Your task to perform on an android device: Open wifi settings Image 0: 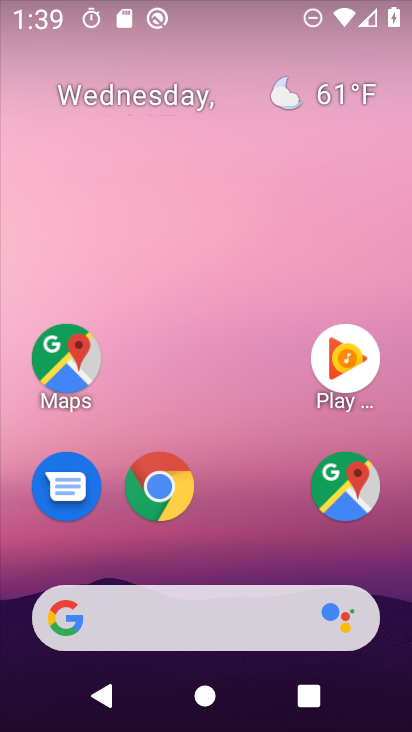
Step 0: drag from (248, 544) to (248, 120)
Your task to perform on an android device: Open wifi settings Image 1: 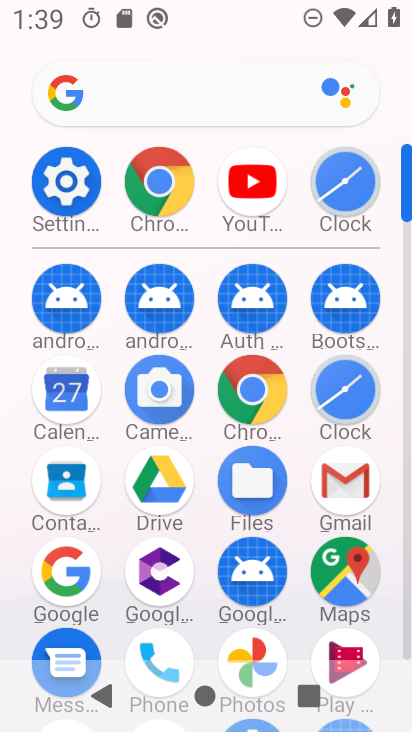
Step 1: click (54, 182)
Your task to perform on an android device: Open wifi settings Image 2: 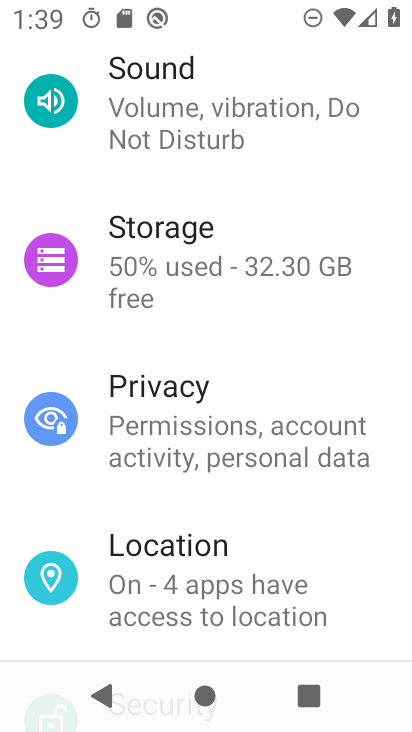
Step 2: drag from (355, 513) to (354, 453)
Your task to perform on an android device: Open wifi settings Image 3: 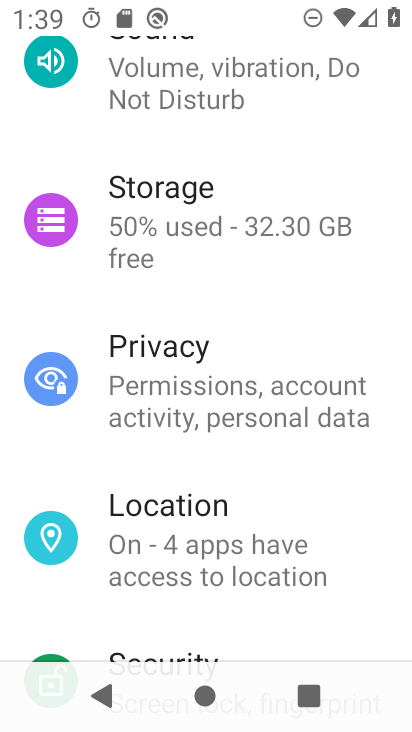
Step 3: drag from (374, 546) to (373, 484)
Your task to perform on an android device: Open wifi settings Image 4: 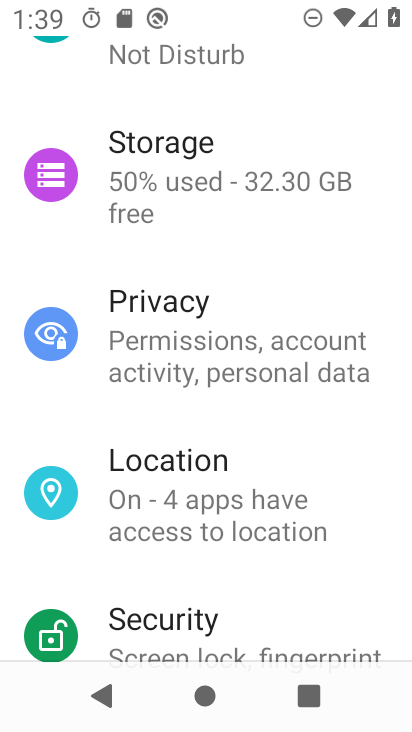
Step 4: drag from (362, 565) to (364, 505)
Your task to perform on an android device: Open wifi settings Image 5: 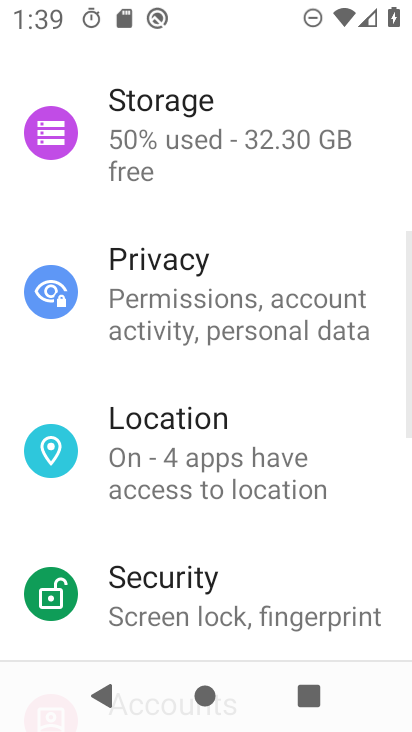
Step 5: drag from (354, 568) to (354, 508)
Your task to perform on an android device: Open wifi settings Image 6: 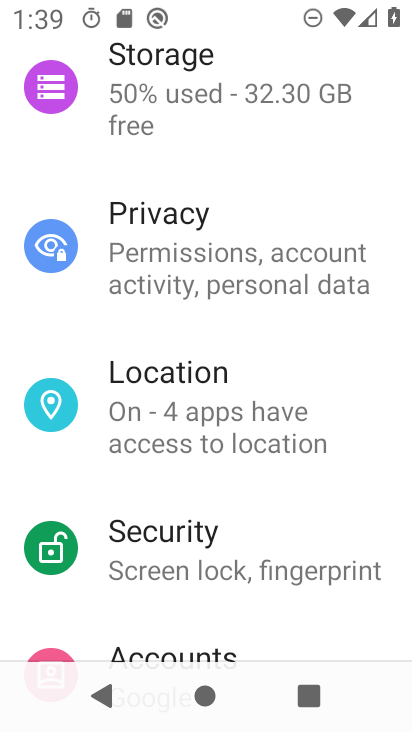
Step 6: drag from (357, 593) to (357, 529)
Your task to perform on an android device: Open wifi settings Image 7: 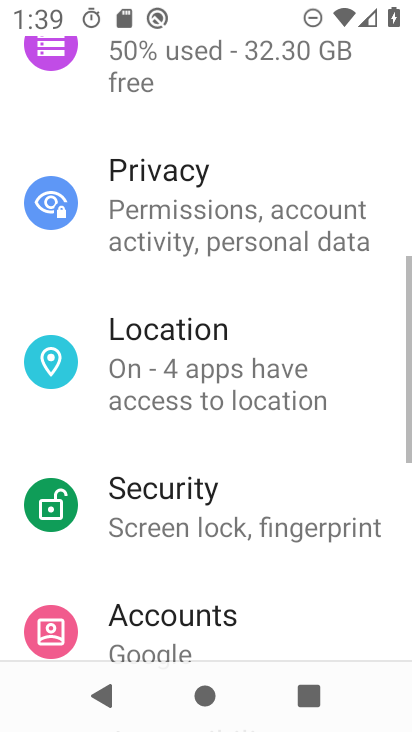
Step 7: drag from (356, 588) to (356, 519)
Your task to perform on an android device: Open wifi settings Image 8: 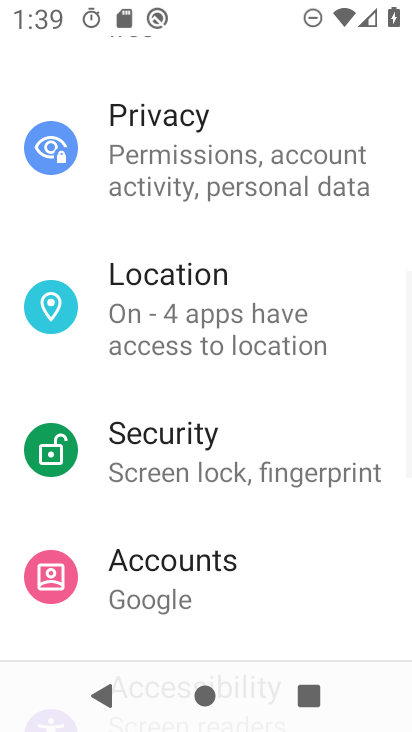
Step 8: drag from (346, 597) to (355, 524)
Your task to perform on an android device: Open wifi settings Image 9: 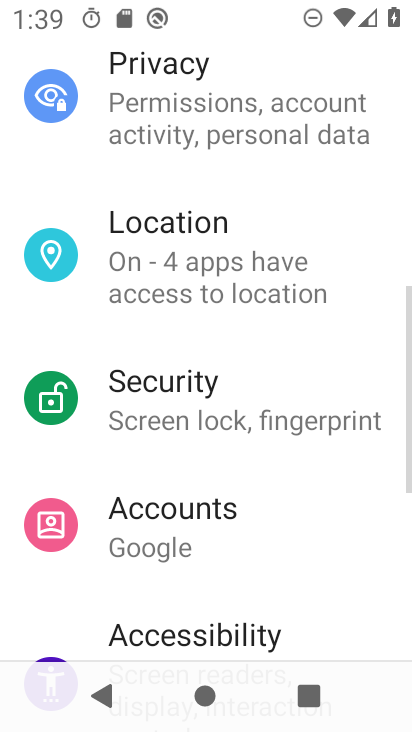
Step 9: drag from (349, 592) to (349, 492)
Your task to perform on an android device: Open wifi settings Image 10: 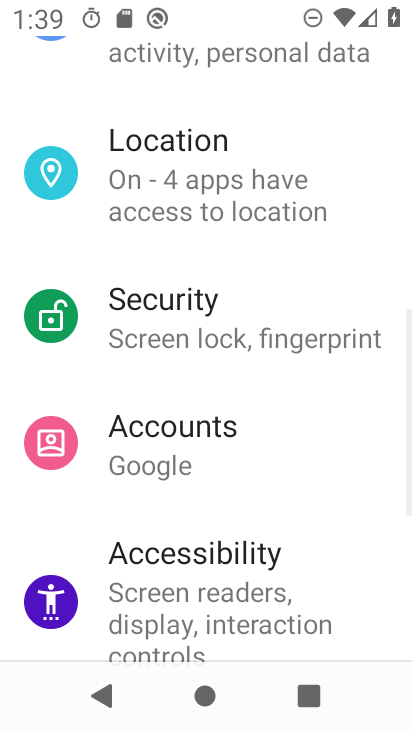
Step 10: drag from (340, 579) to (341, 493)
Your task to perform on an android device: Open wifi settings Image 11: 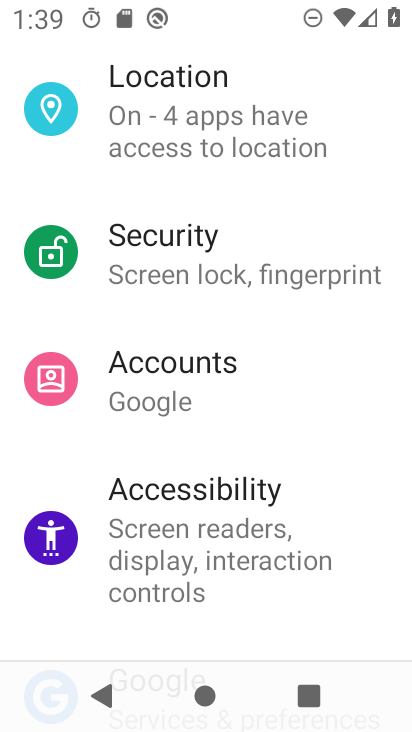
Step 11: drag from (352, 563) to (351, 466)
Your task to perform on an android device: Open wifi settings Image 12: 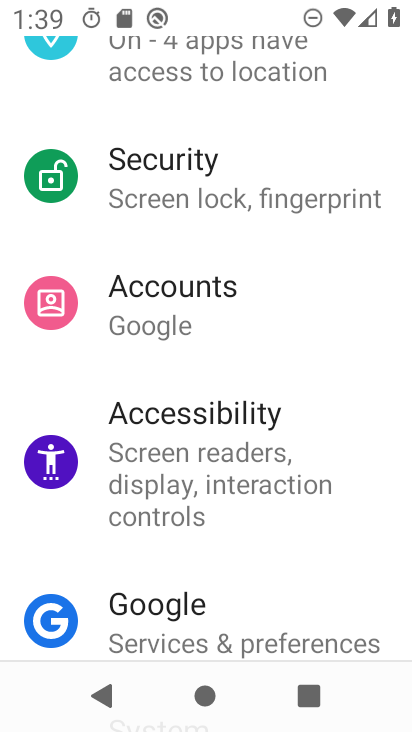
Step 12: drag from (345, 574) to (346, 474)
Your task to perform on an android device: Open wifi settings Image 13: 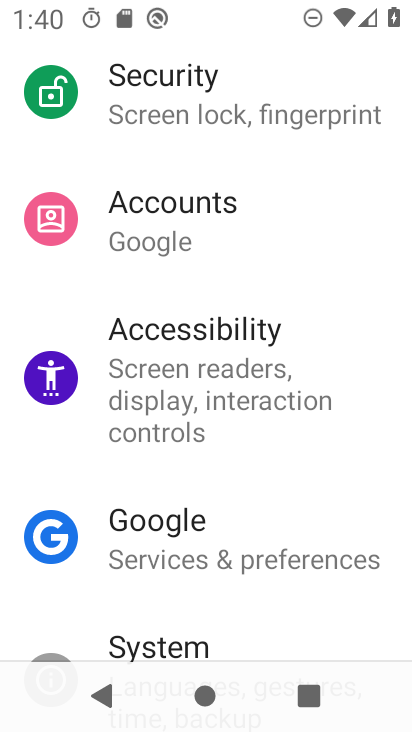
Step 13: drag from (342, 580) to (342, 477)
Your task to perform on an android device: Open wifi settings Image 14: 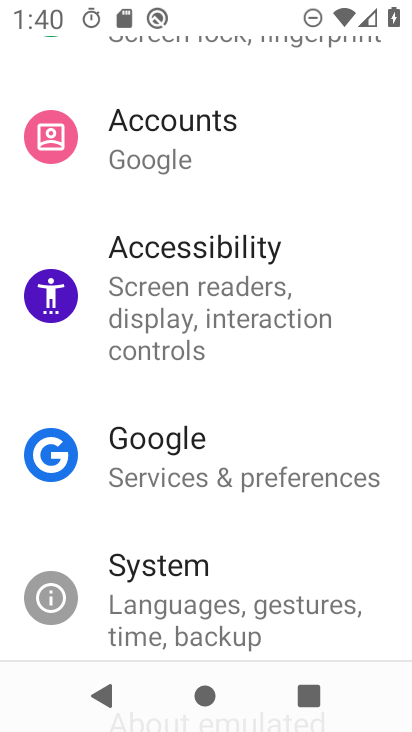
Step 14: drag from (334, 554) to (334, 427)
Your task to perform on an android device: Open wifi settings Image 15: 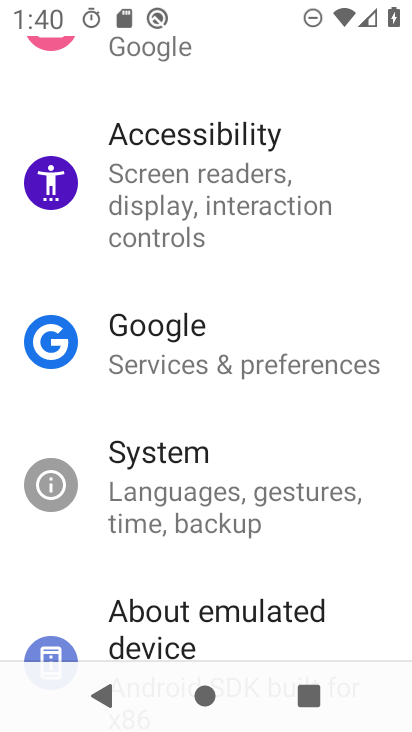
Step 15: drag from (336, 556) to (336, 460)
Your task to perform on an android device: Open wifi settings Image 16: 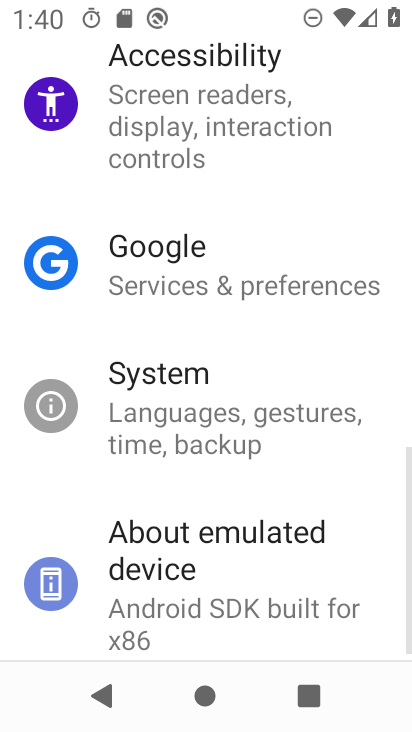
Step 16: drag from (344, 328) to (348, 443)
Your task to perform on an android device: Open wifi settings Image 17: 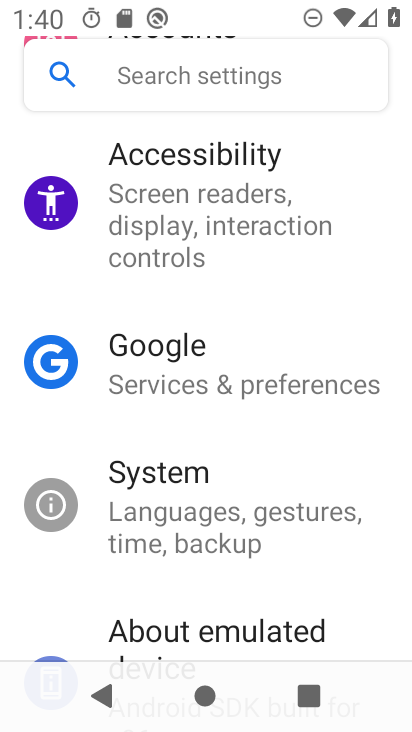
Step 17: drag from (358, 287) to (362, 356)
Your task to perform on an android device: Open wifi settings Image 18: 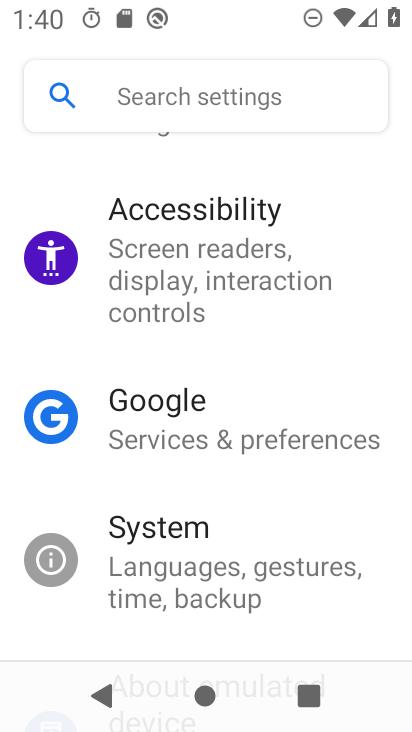
Step 18: drag from (25, 561) to (349, 505)
Your task to perform on an android device: Open wifi settings Image 19: 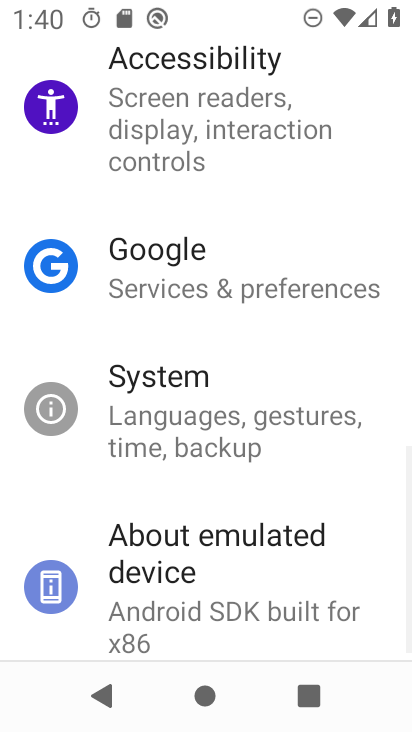
Step 19: drag from (347, 324) to (353, 428)
Your task to perform on an android device: Open wifi settings Image 20: 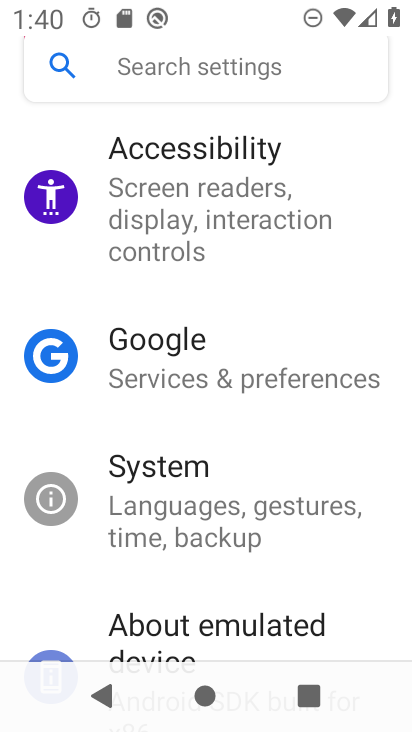
Step 20: drag from (362, 318) to (362, 393)
Your task to perform on an android device: Open wifi settings Image 21: 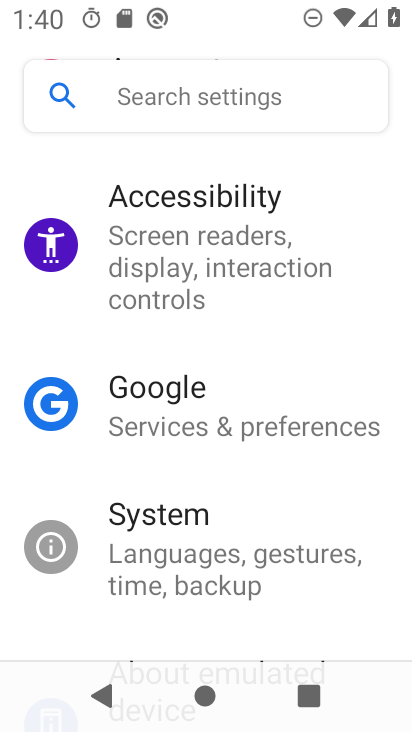
Step 21: drag from (353, 302) to (358, 359)
Your task to perform on an android device: Open wifi settings Image 22: 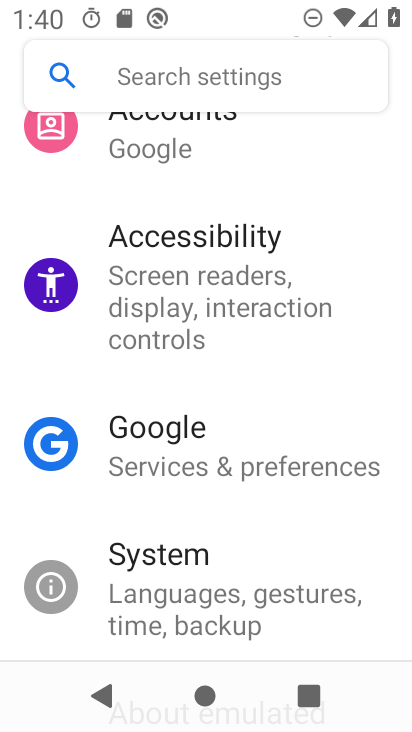
Step 22: drag from (369, 277) to (371, 378)
Your task to perform on an android device: Open wifi settings Image 23: 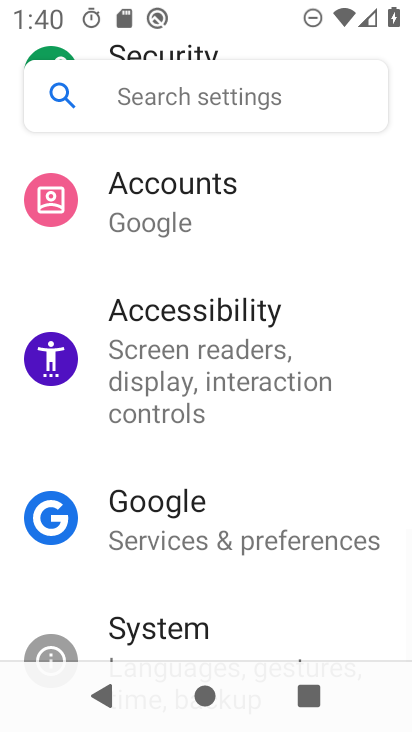
Step 23: drag from (365, 314) to (365, 391)
Your task to perform on an android device: Open wifi settings Image 24: 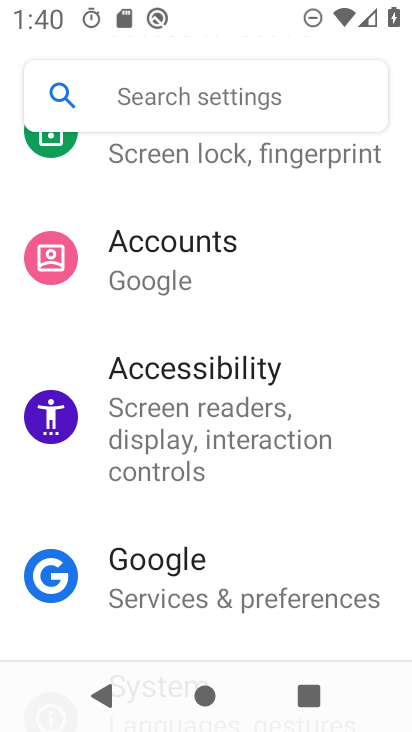
Step 24: drag from (362, 298) to (362, 437)
Your task to perform on an android device: Open wifi settings Image 25: 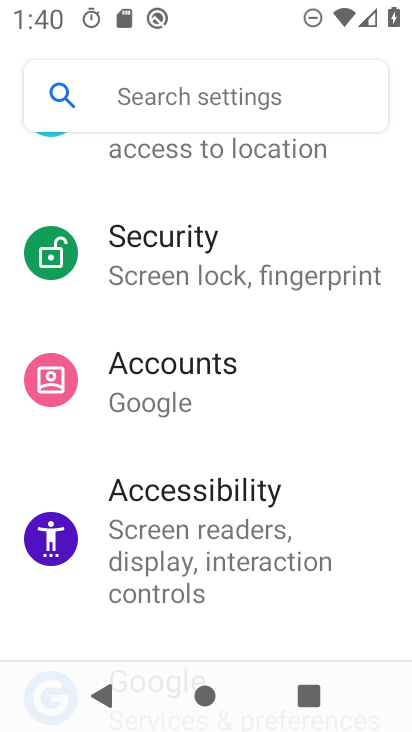
Step 25: drag from (359, 350) to (359, 448)
Your task to perform on an android device: Open wifi settings Image 26: 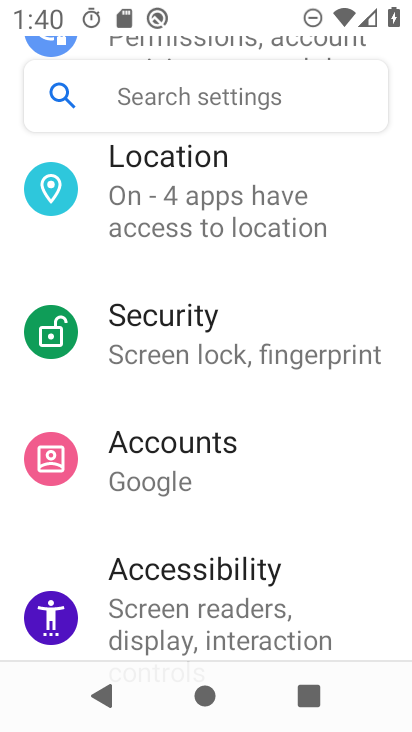
Step 26: drag from (348, 305) to (348, 439)
Your task to perform on an android device: Open wifi settings Image 27: 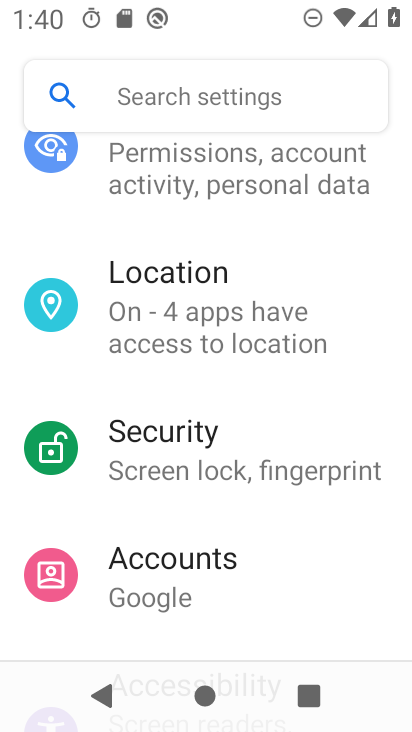
Step 27: drag from (349, 327) to (350, 452)
Your task to perform on an android device: Open wifi settings Image 28: 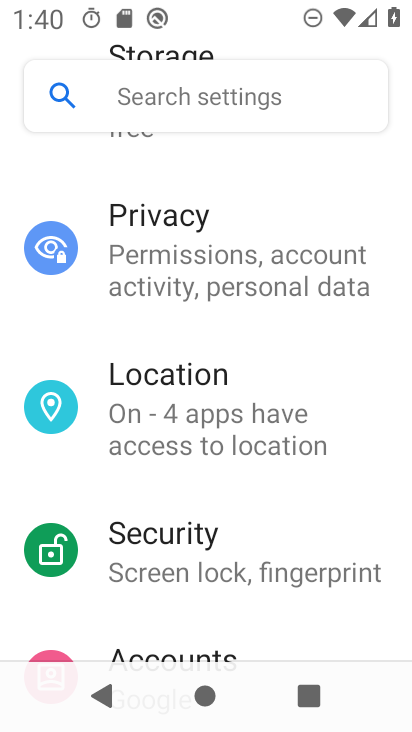
Step 28: drag from (350, 330) to (349, 393)
Your task to perform on an android device: Open wifi settings Image 29: 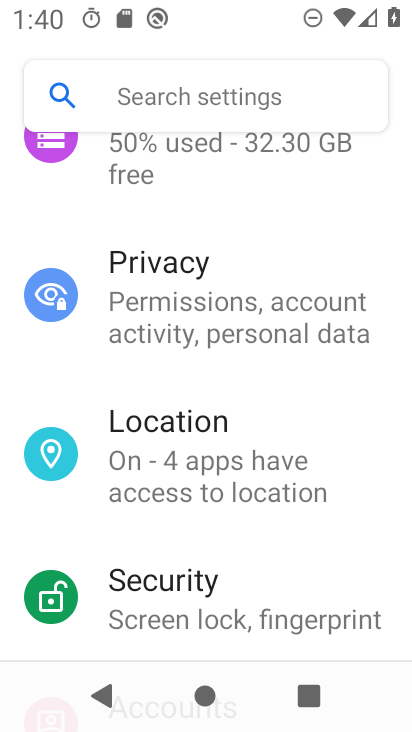
Step 29: drag from (372, 248) to (380, 368)
Your task to perform on an android device: Open wifi settings Image 30: 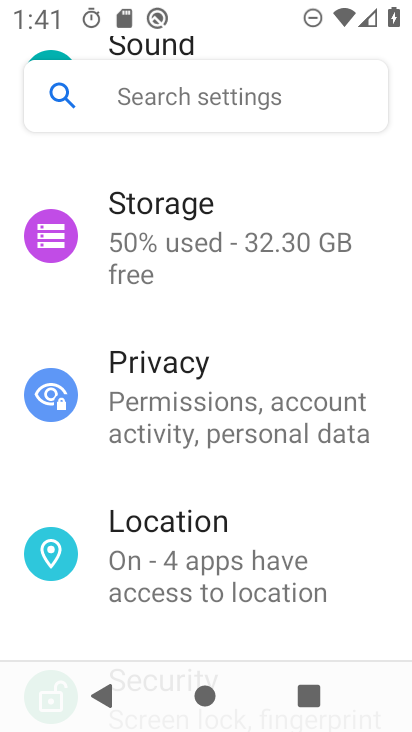
Step 30: drag from (370, 272) to (370, 323)
Your task to perform on an android device: Open wifi settings Image 31: 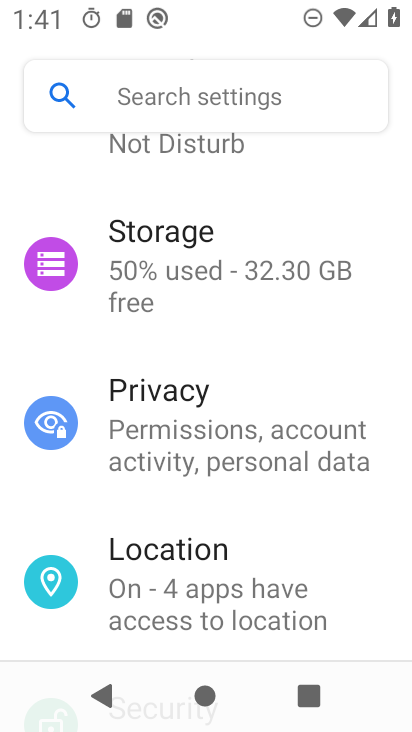
Step 31: drag from (370, 266) to (376, 363)
Your task to perform on an android device: Open wifi settings Image 32: 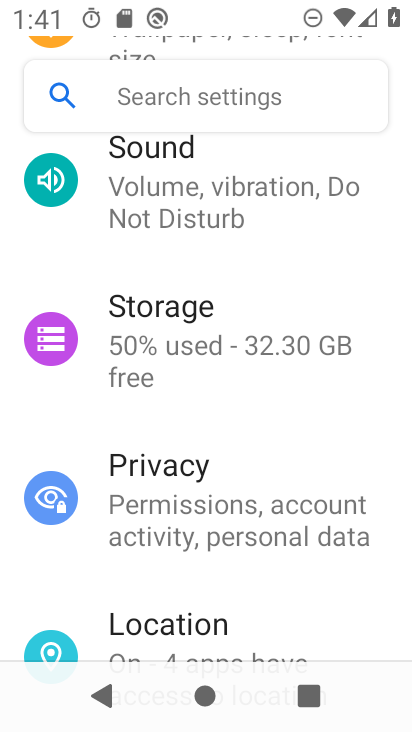
Step 32: drag from (376, 253) to (379, 343)
Your task to perform on an android device: Open wifi settings Image 33: 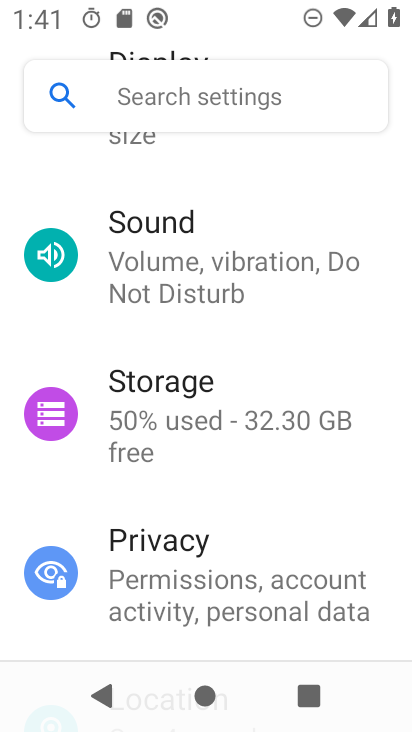
Step 33: drag from (382, 209) to (390, 331)
Your task to perform on an android device: Open wifi settings Image 34: 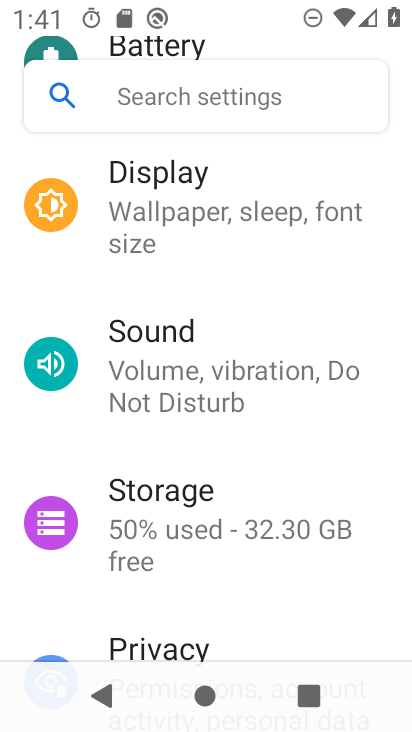
Step 34: drag from (373, 259) to (371, 369)
Your task to perform on an android device: Open wifi settings Image 35: 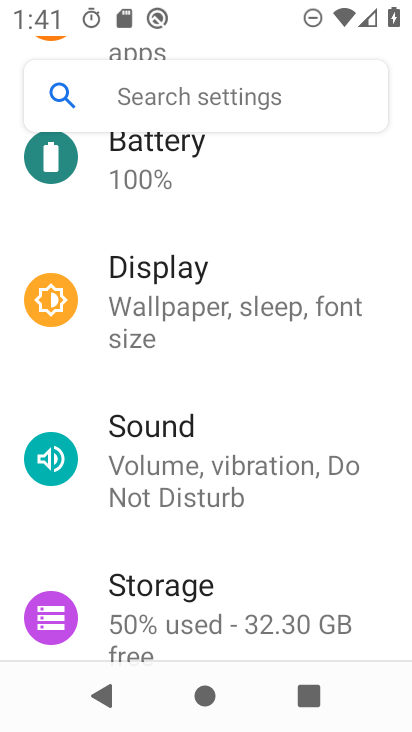
Step 35: drag from (370, 218) to (371, 479)
Your task to perform on an android device: Open wifi settings Image 36: 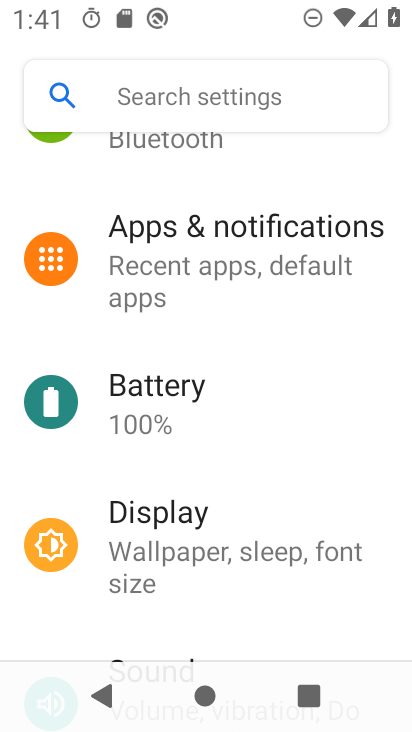
Step 36: drag from (356, 177) to (349, 429)
Your task to perform on an android device: Open wifi settings Image 37: 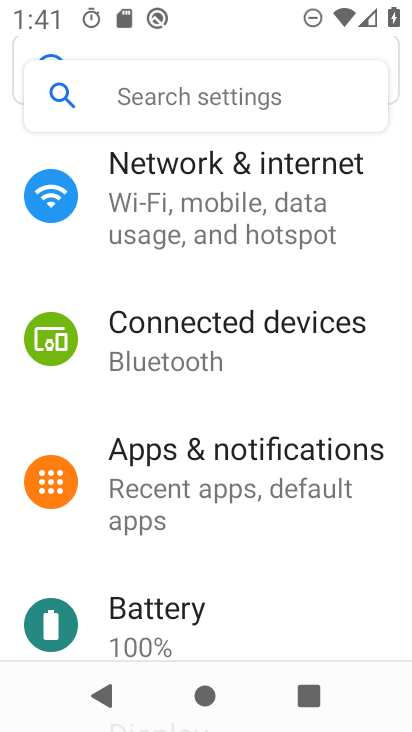
Step 37: click (309, 210)
Your task to perform on an android device: Open wifi settings Image 38: 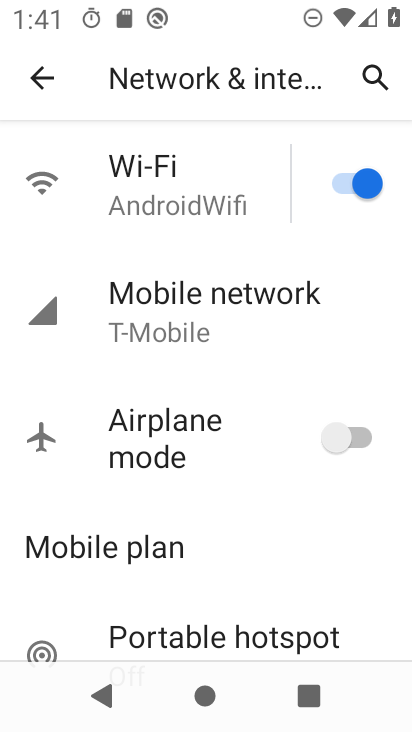
Step 38: click (201, 191)
Your task to perform on an android device: Open wifi settings Image 39: 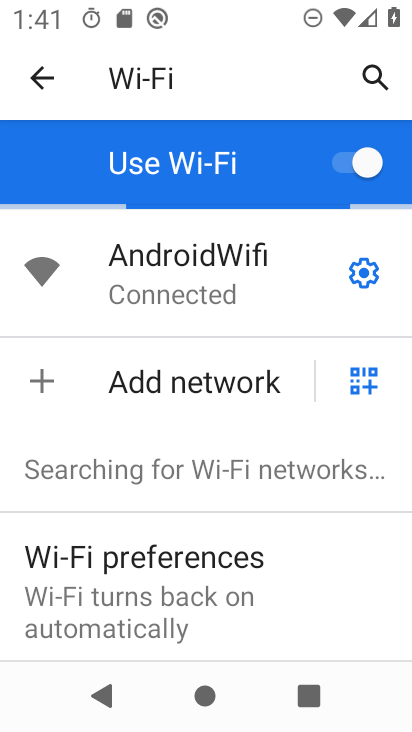
Step 39: task complete